Your task to perform on an android device: Check the news Image 0: 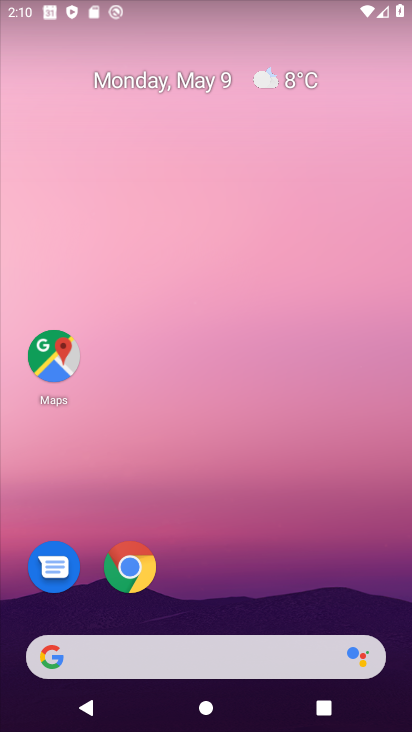
Step 0: drag from (312, 511) to (288, 276)
Your task to perform on an android device: Check the news Image 1: 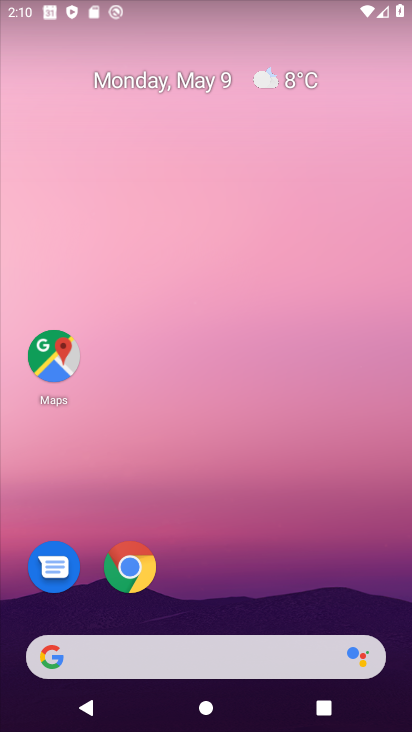
Step 1: drag from (305, 561) to (270, 196)
Your task to perform on an android device: Check the news Image 2: 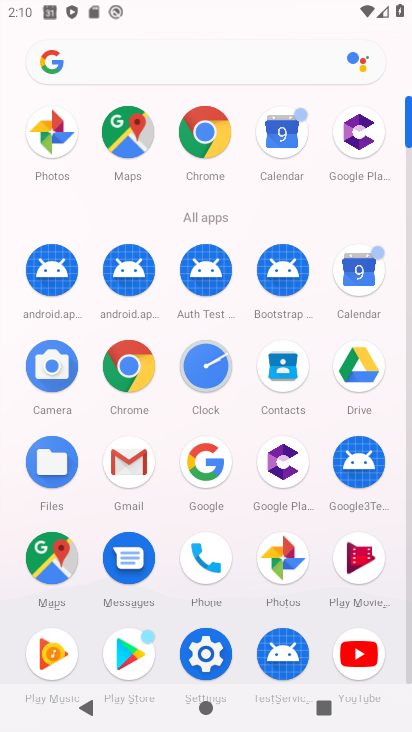
Step 2: click (120, 341)
Your task to perform on an android device: Check the news Image 3: 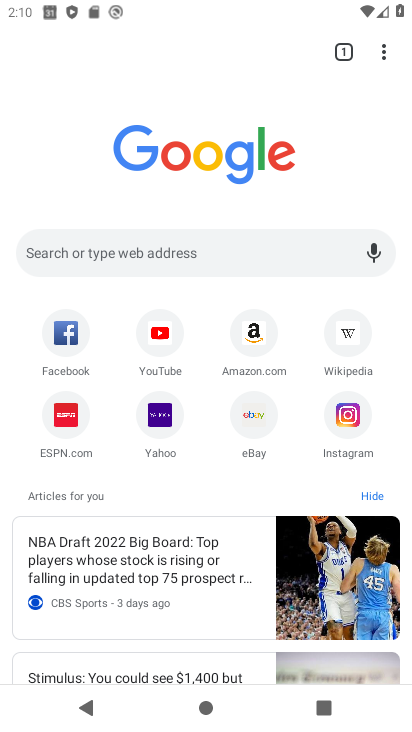
Step 3: click (216, 251)
Your task to perform on an android device: Check the news Image 4: 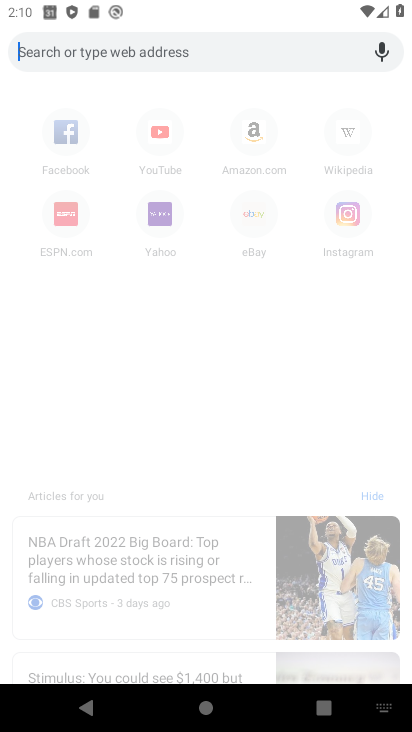
Step 4: type "Check the news"
Your task to perform on an android device: Check the news Image 5: 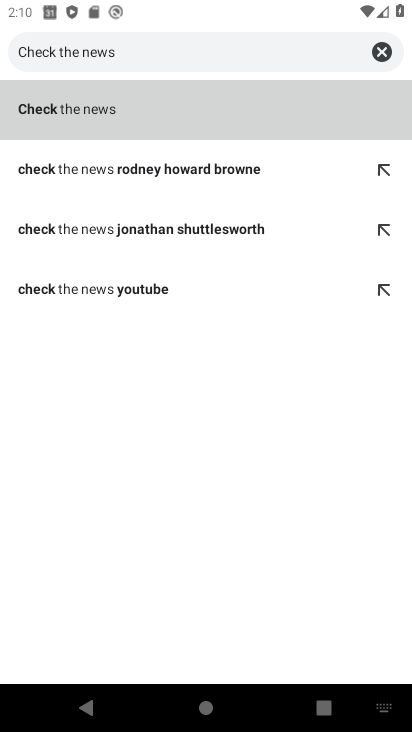
Step 5: click (75, 112)
Your task to perform on an android device: Check the news Image 6: 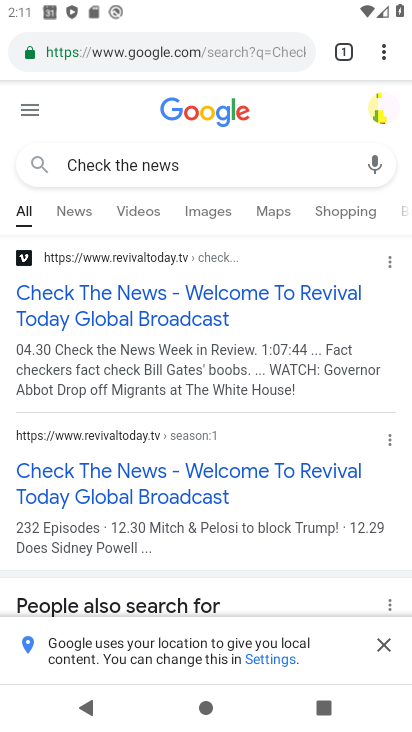
Step 6: task complete